Your task to perform on an android device: add a label to a message in the gmail app Image 0: 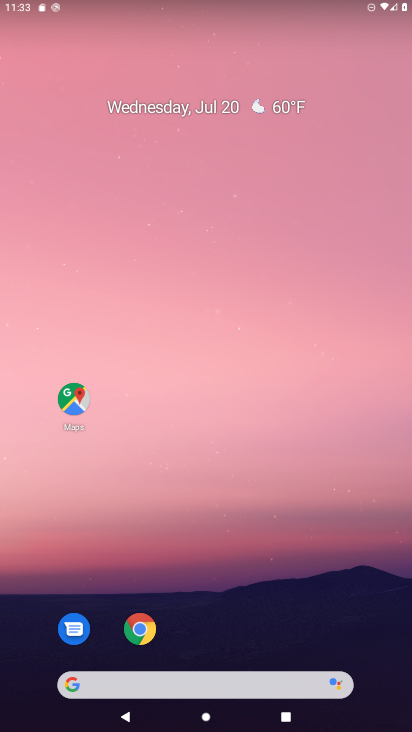
Step 0: drag from (219, 618) to (241, 168)
Your task to perform on an android device: add a label to a message in the gmail app Image 1: 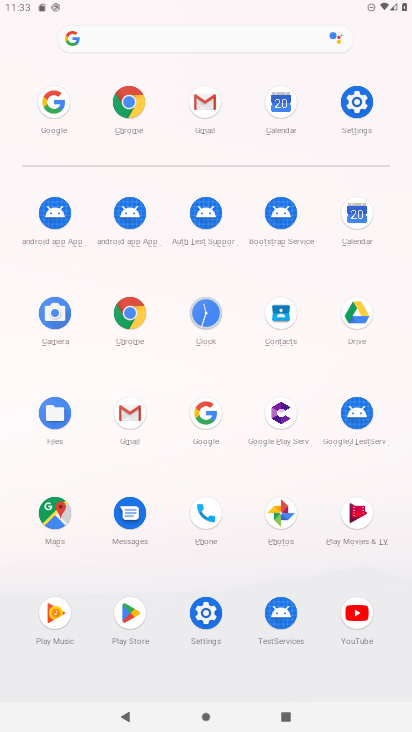
Step 1: click (193, 103)
Your task to perform on an android device: add a label to a message in the gmail app Image 2: 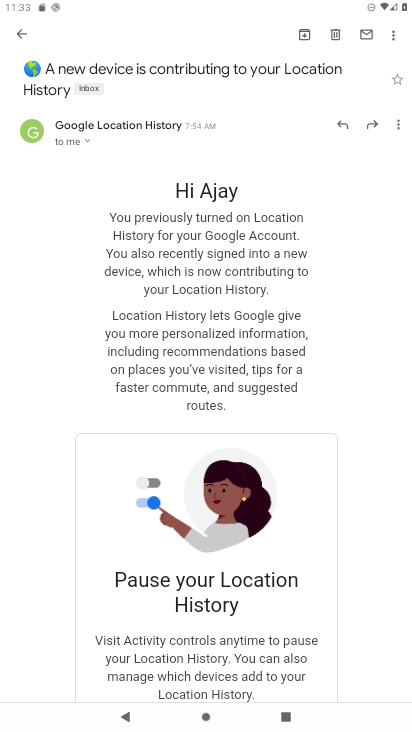
Step 2: click (14, 27)
Your task to perform on an android device: add a label to a message in the gmail app Image 3: 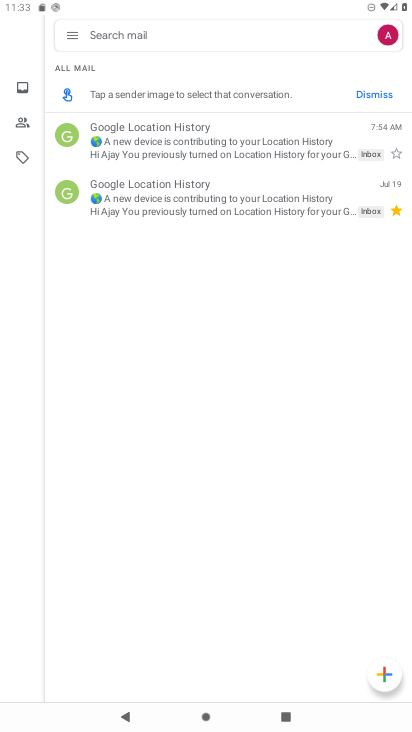
Step 3: click (157, 191)
Your task to perform on an android device: add a label to a message in the gmail app Image 4: 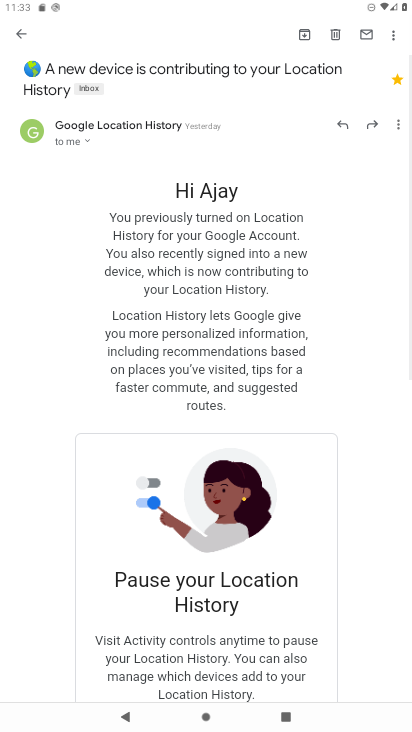
Step 4: click (101, 93)
Your task to perform on an android device: add a label to a message in the gmail app Image 5: 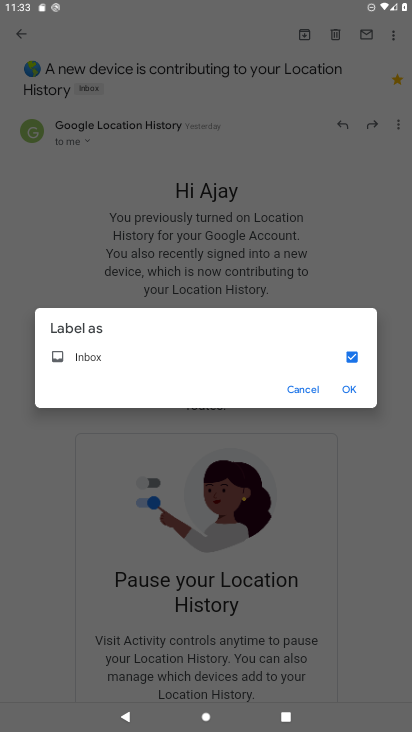
Step 5: click (361, 388)
Your task to perform on an android device: add a label to a message in the gmail app Image 6: 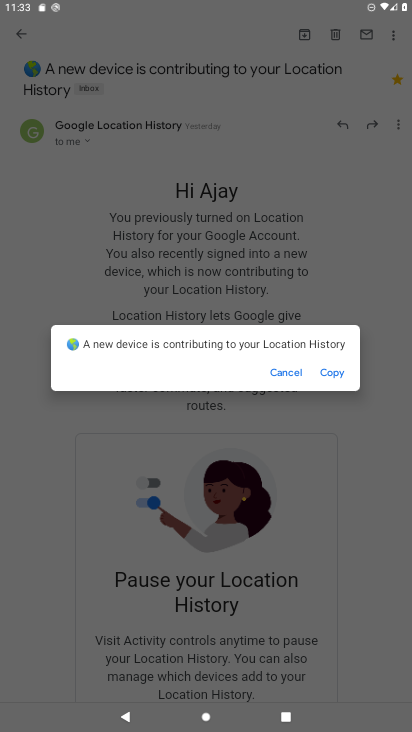
Step 6: task complete